Your task to perform on an android device: Open Reddit.com Image 0: 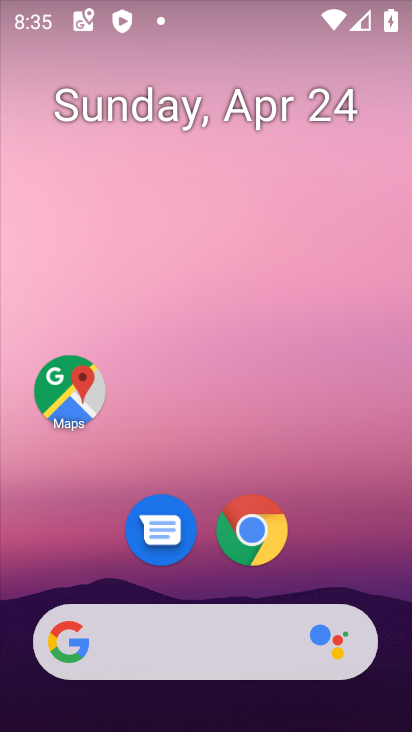
Step 0: click (252, 531)
Your task to perform on an android device: Open Reddit.com Image 1: 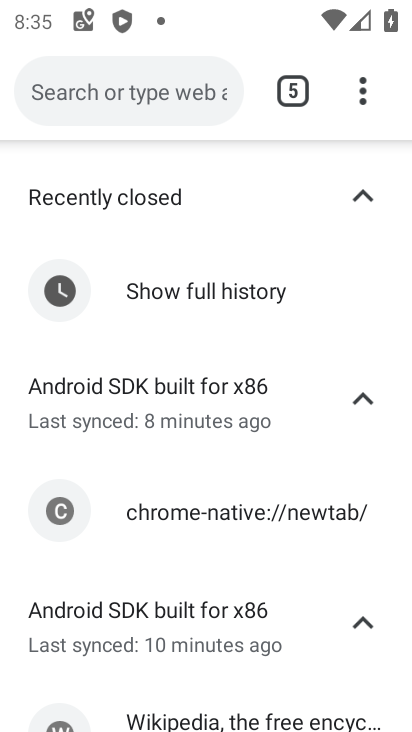
Step 1: click (142, 92)
Your task to perform on an android device: Open Reddit.com Image 2: 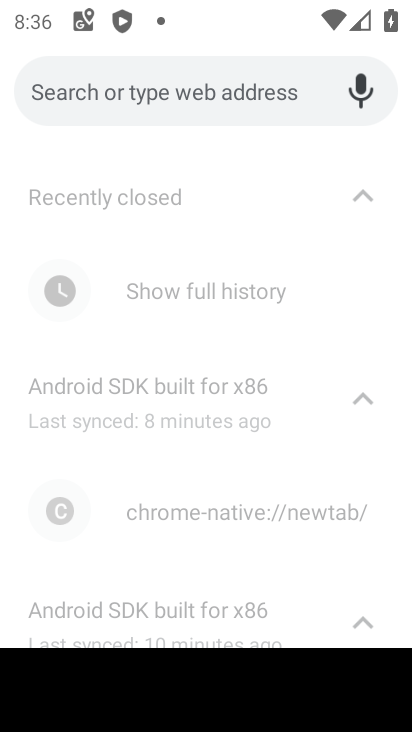
Step 2: type "reddit.com"
Your task to perform on an android device: Open Reddit.com Image 3: 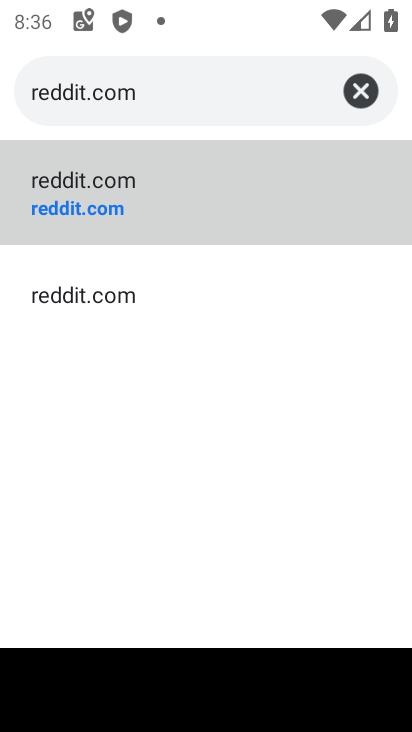
Step 3: click (149, 233)
Your task to perform on an android device: Open Reddit.com Image 4: 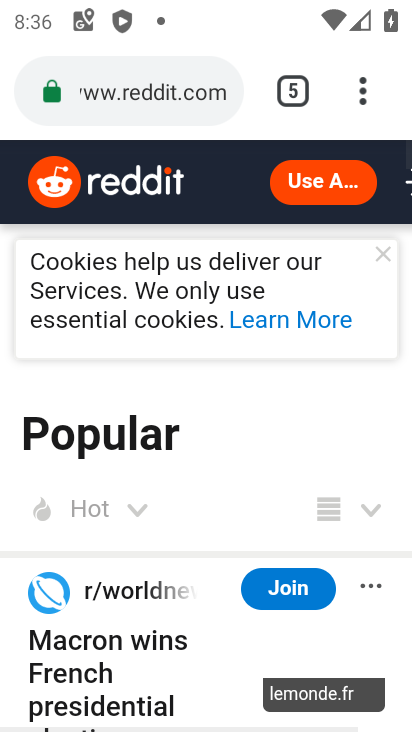
Step 4: task complete